Your task to perform on an android device: turn off sleep mode Image 0: 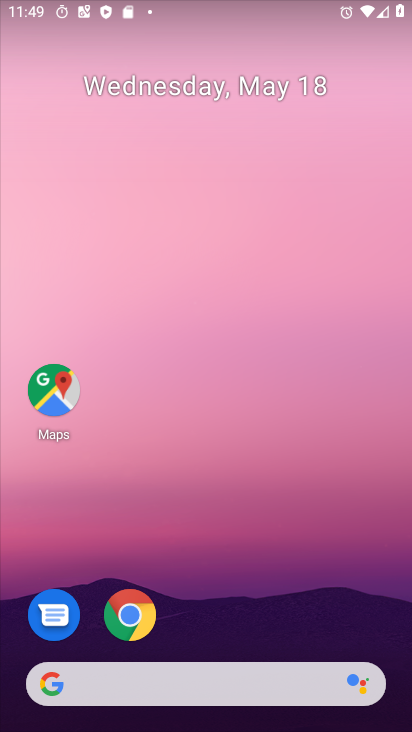
Step 0: drag from (38, 492) to (186, 242)
Your task to perform on an android device: turn off sleep mode Image 1: 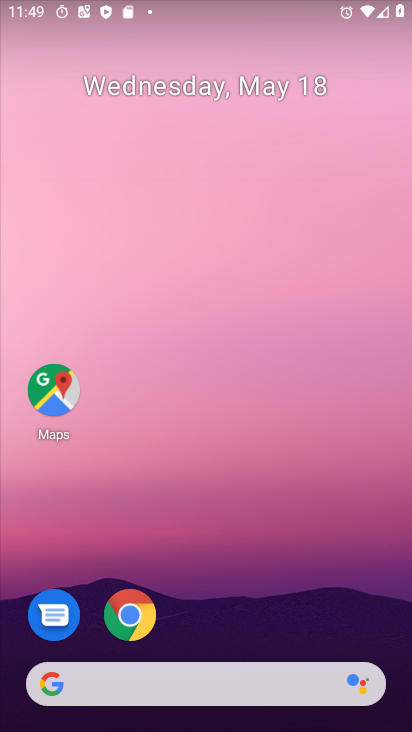
Step 1: drag from (75, 435) to (276, 132)
Your task to perform on an android device: turn off sleep mode Image 2: 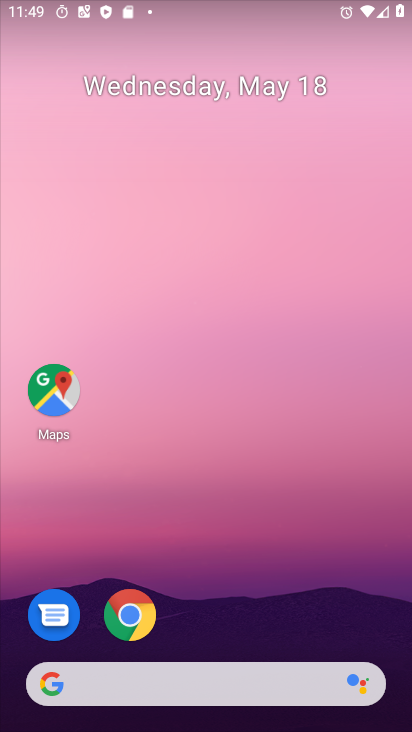
Step 2: drag from (117, 230) to (156, 155)
Your task to perform on an android device: turn off sleep mode Image 3: 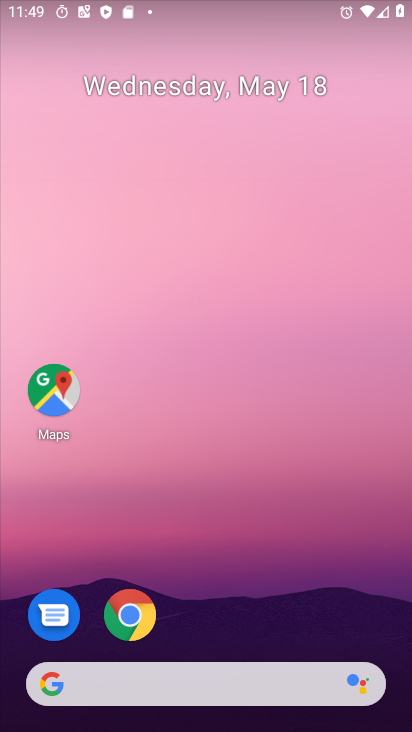
Step 3: drag from (51, 472) to (245, 90)
Your task to perform on an android device: turn off sleep mode Image 4: 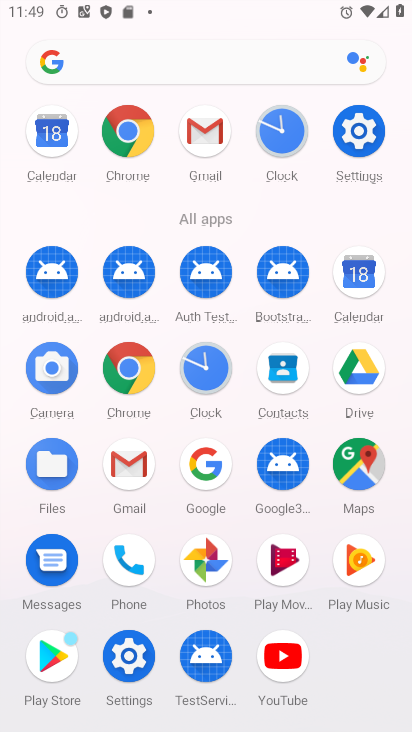
Step 4: click (365, 133)
Your task to perform on an android device: turn off sleep mode Image 5: 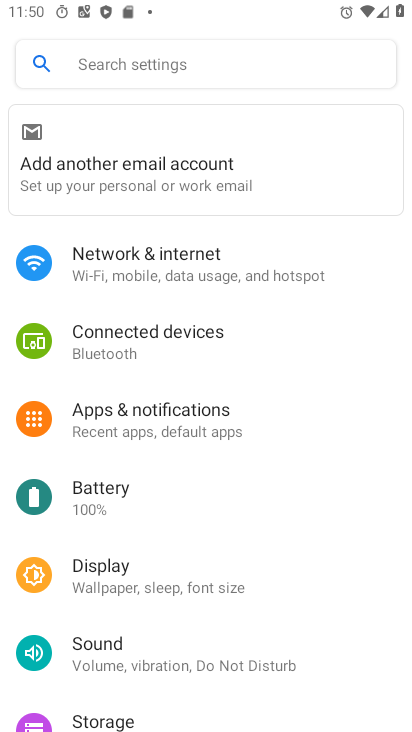
Step 5: click (159, 571)
Your task to perform on an android device: turn off sleep mode Image 6: 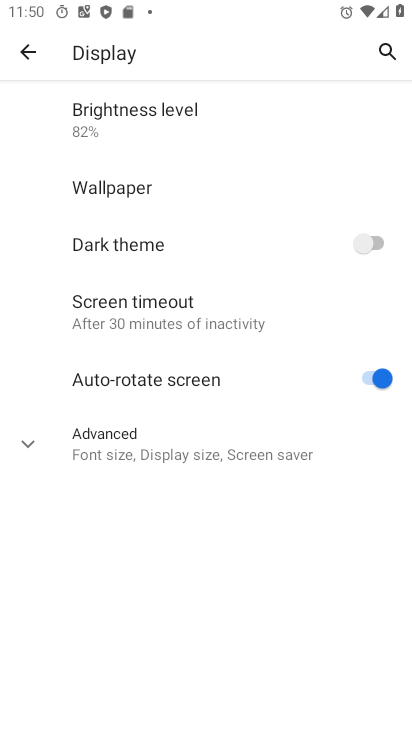
Step 6: task complete